Your task to perform on an android device: open sync settings in chrome Image 0: 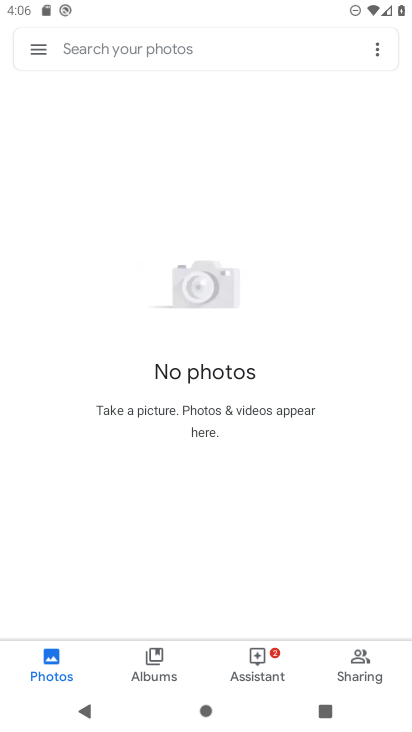
Step 0: press home button
Your task to perform on an android device: open sync settings in chrome Image 1: 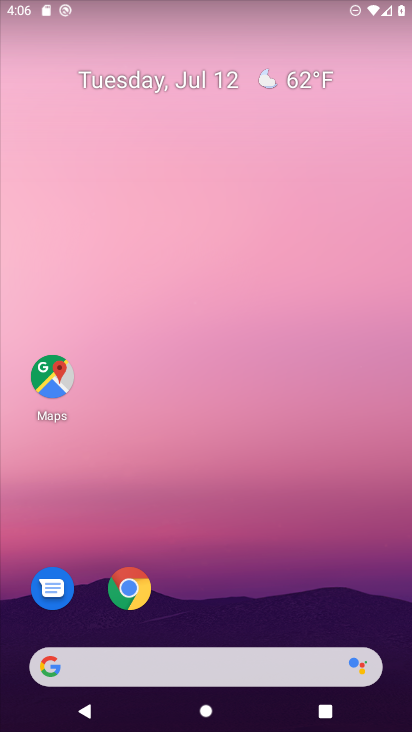
Step 1: drag from (226, 572) to (270, 24)
Your task to perform on an android device: open sync settings in chrome Image 2: 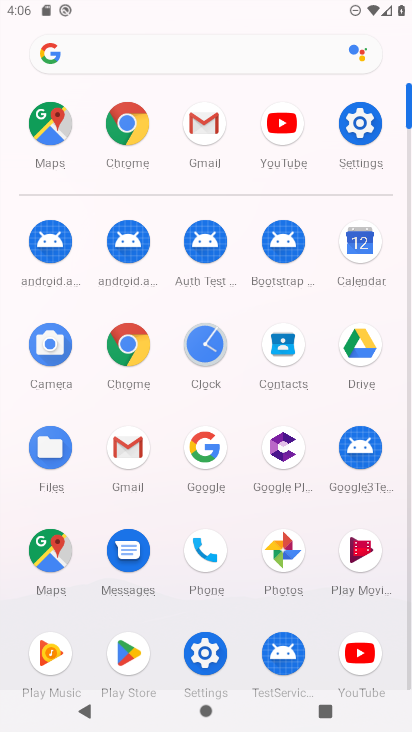
Step 2: click (129, 346)
Your task to perform on an android device: open sync settings in chrome Image 3: 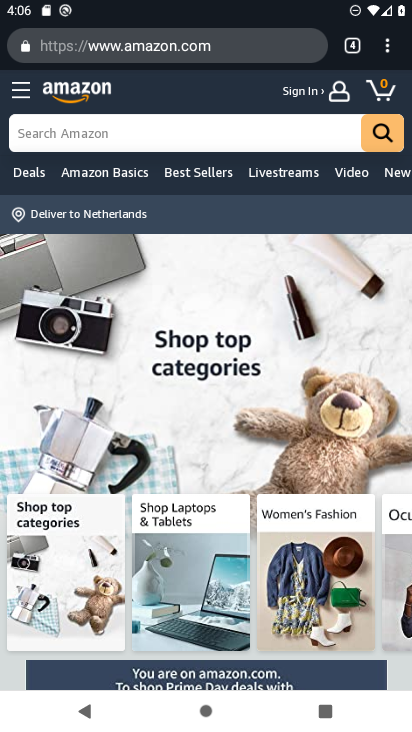
Step 3: click (388, 49)
Your task to perform on an android device: open sync settings in chrome Image 4: 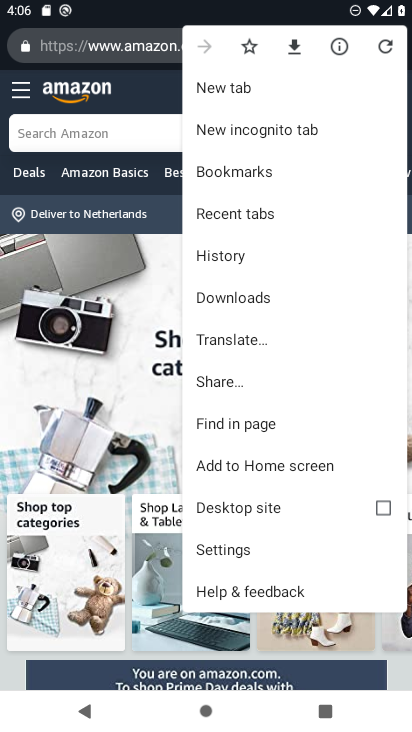
Step 4: click (234, 549)
Your task to perform on an android device: open sync settings in chrome Image 5: 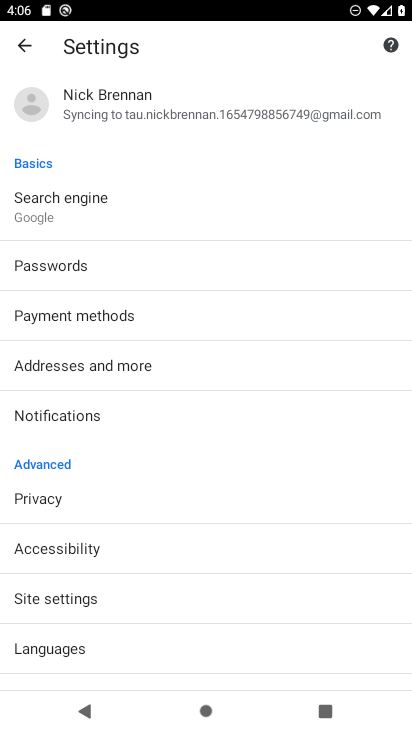
Step 5: click (149, 114)
Your task to perform on an android device: open sync settings in chrome Image 6: 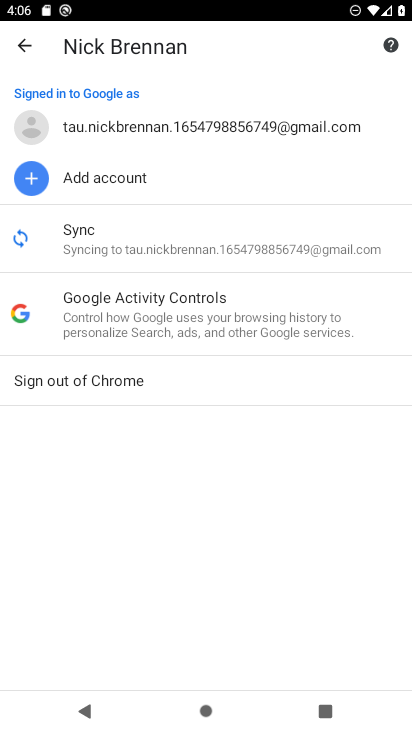
Step 6: click (140, 238)
Your task to perform on an android device: open sync settings in chrome Image 7: 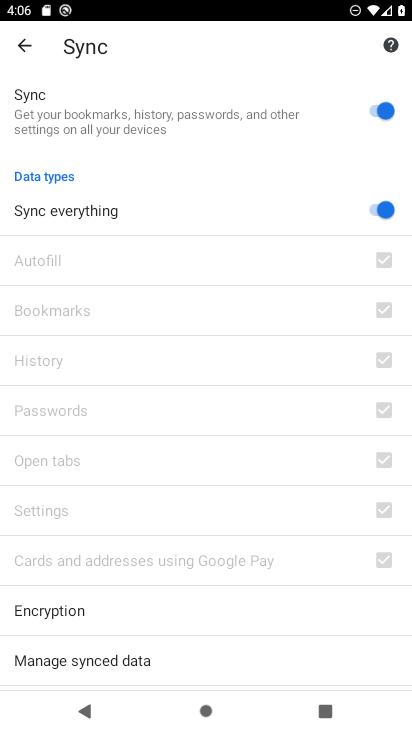
Step 7: task complete